Your task to perform on an android device: Go to CNN.com Image 0: 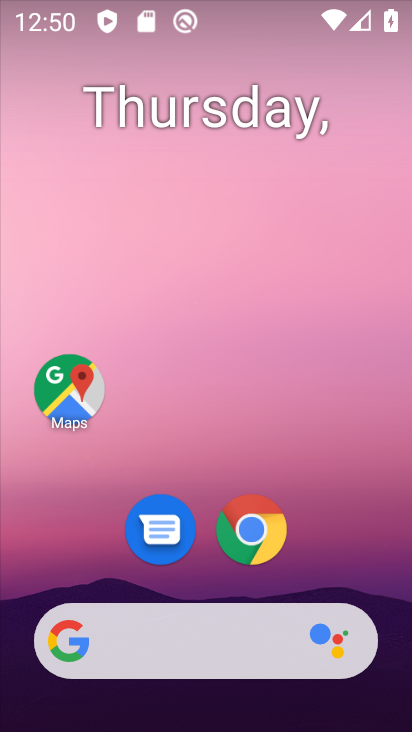
Step 0: drag from (355, 563) to (305, 227)
Your task to perform on an android device: Go to CNN.com Image 1: 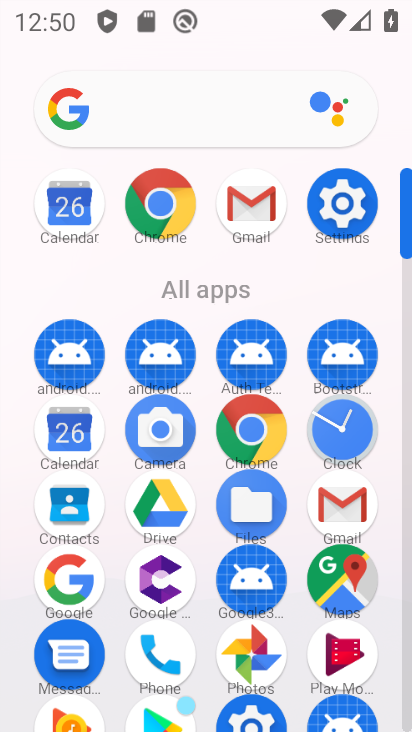
Step 1: click (248, 433)
Your task to perform on an android device: Go to CNN.com Image 2: 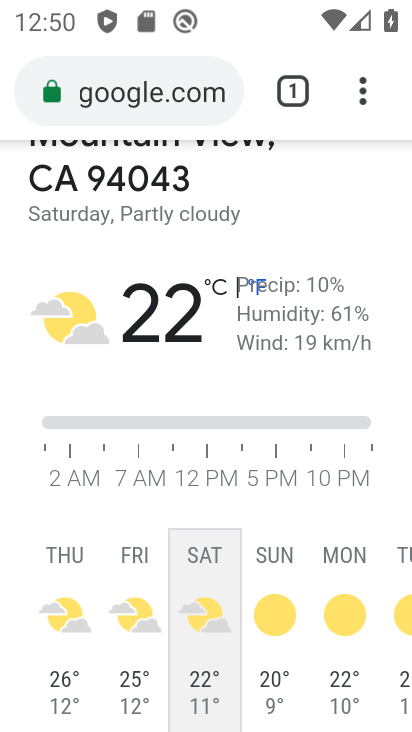
Step 2: click (216, 92)
Your task to perform on an android device: Go to CNN.com Image 3: 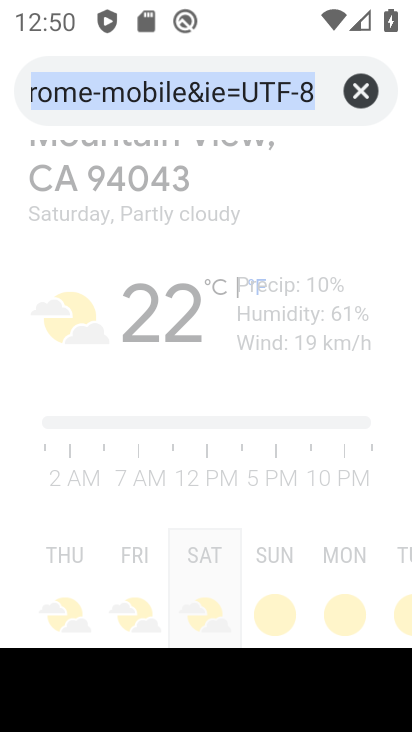
Step 3: click (377, 87)
Your task to perform on an android device: Go to CNN.com Image 4: 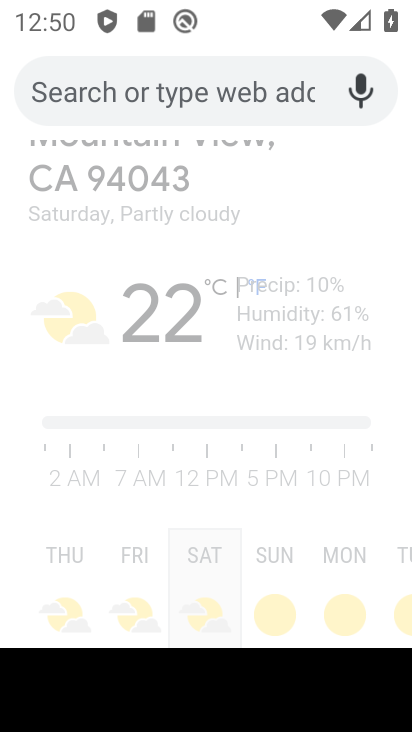
Step 4: type "cnn.com"
Your task to perform on an android device: Go to CNN.com Image 5: 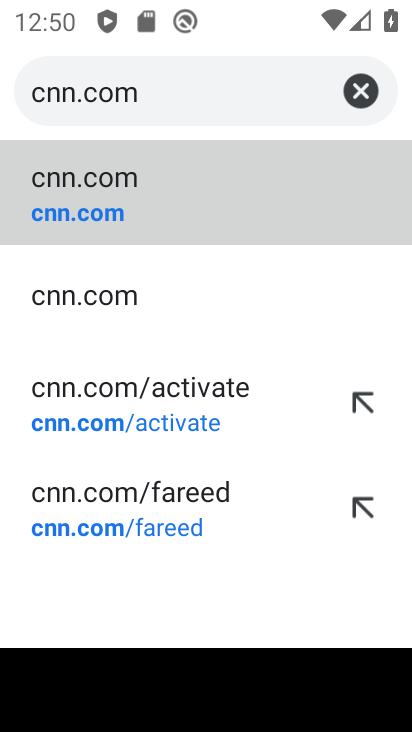
Step 5: click (142, 225)
Your task to perform on an android device: Go to CNN.com Image 6: 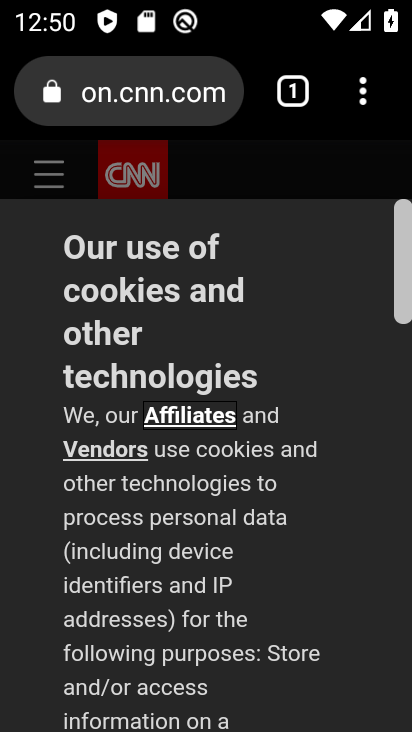
Step 6: task complete